Your task to perform on an android device: turn off picture-in-picture Image 0: 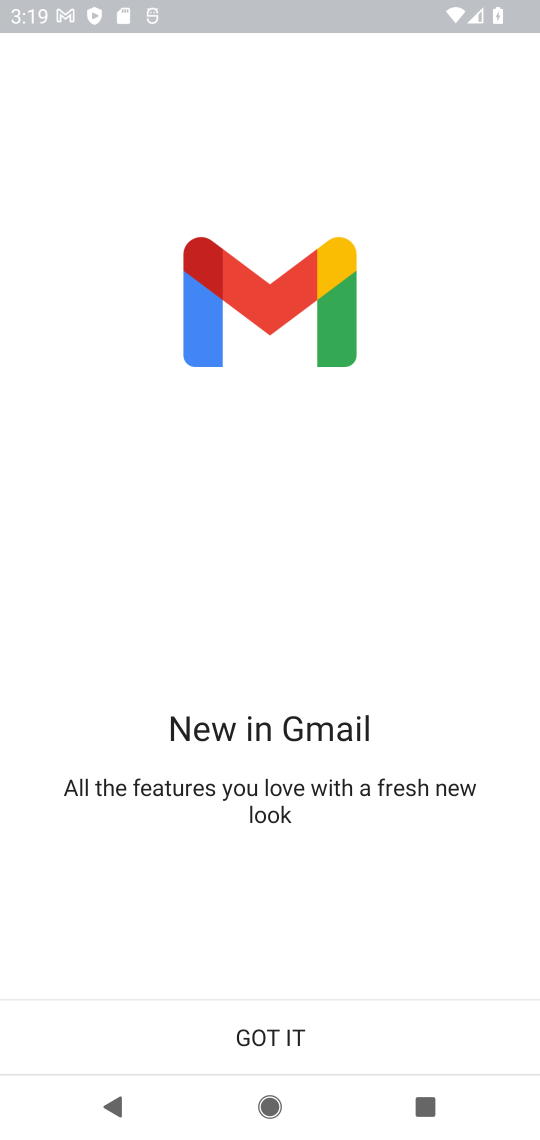
Step 0: press home button
Your task to perform on an android device: turn off picture-in-picture Image 1: 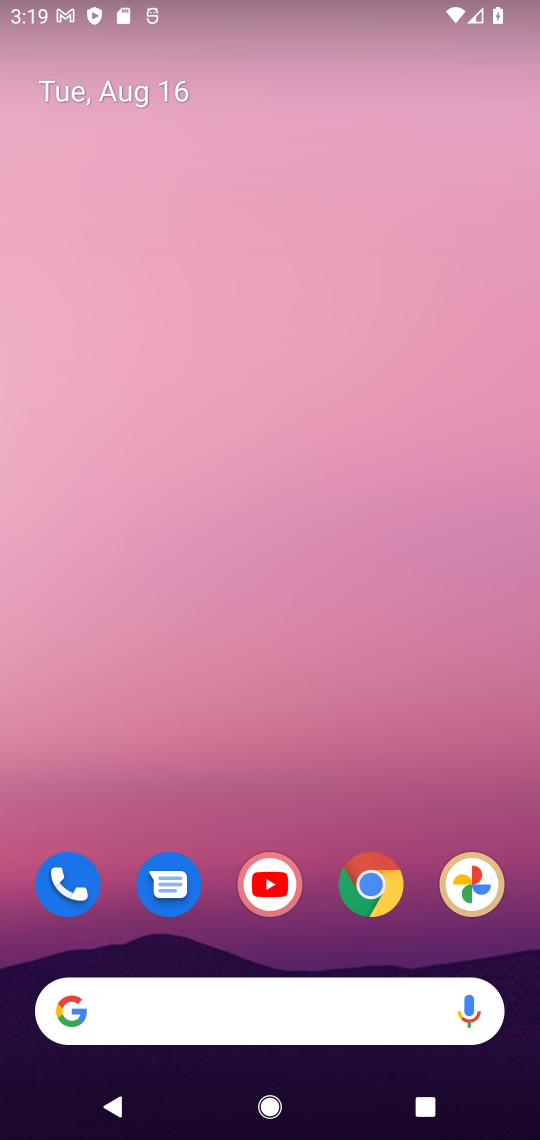
Step 1: click (373, 891)
Your task to perform on an android device: turn off picture-in-picture Image 2: 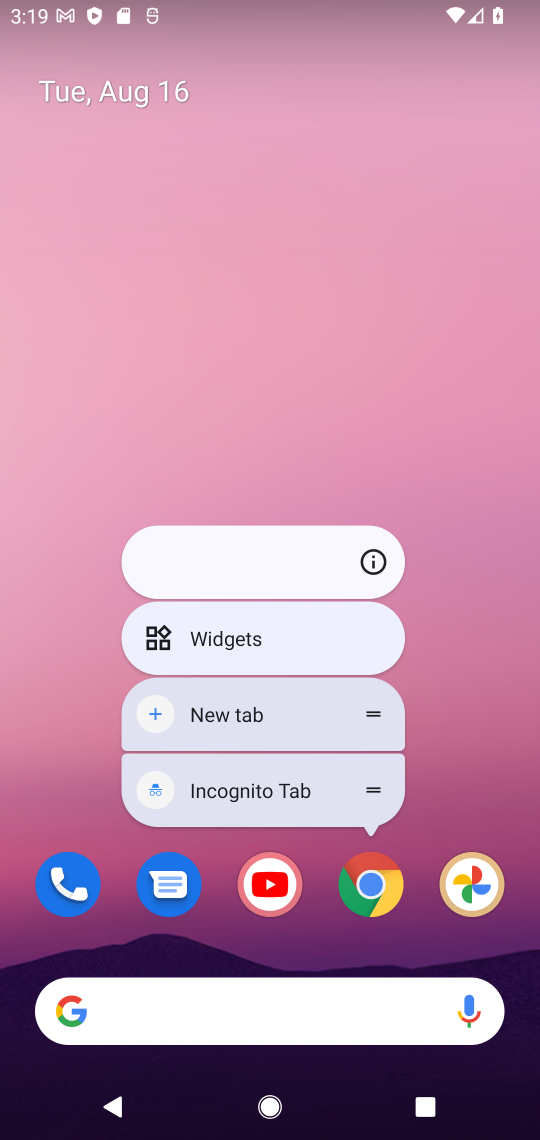
Step 2: click (367, 566)
Your task to perform on an android device: turn off picture-in-picture Image 3: 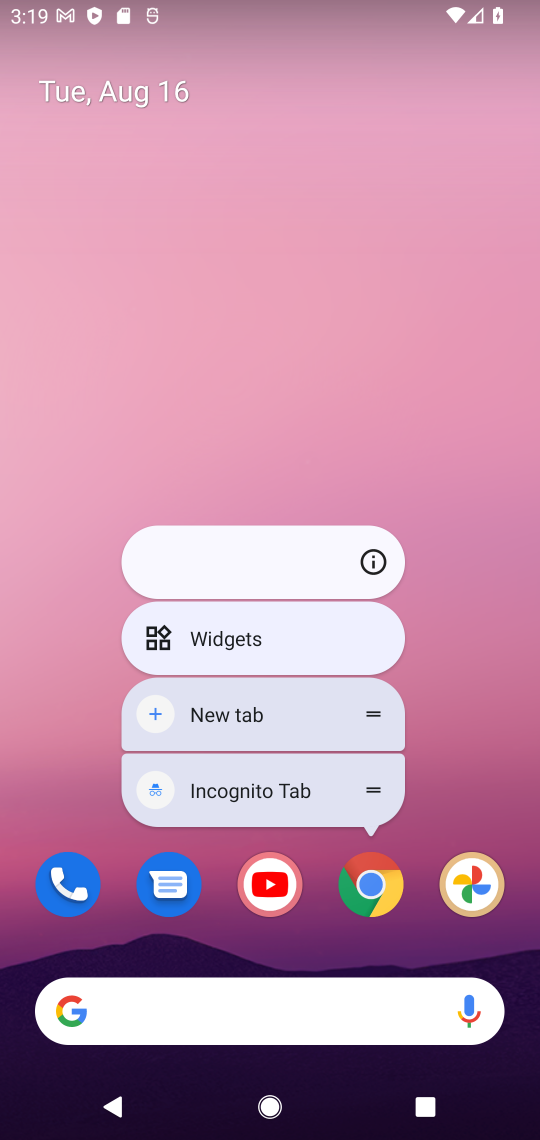
Step 3: click (367, 566)
Your task to perform on an android device: turn off picture-in-picture Image 4: 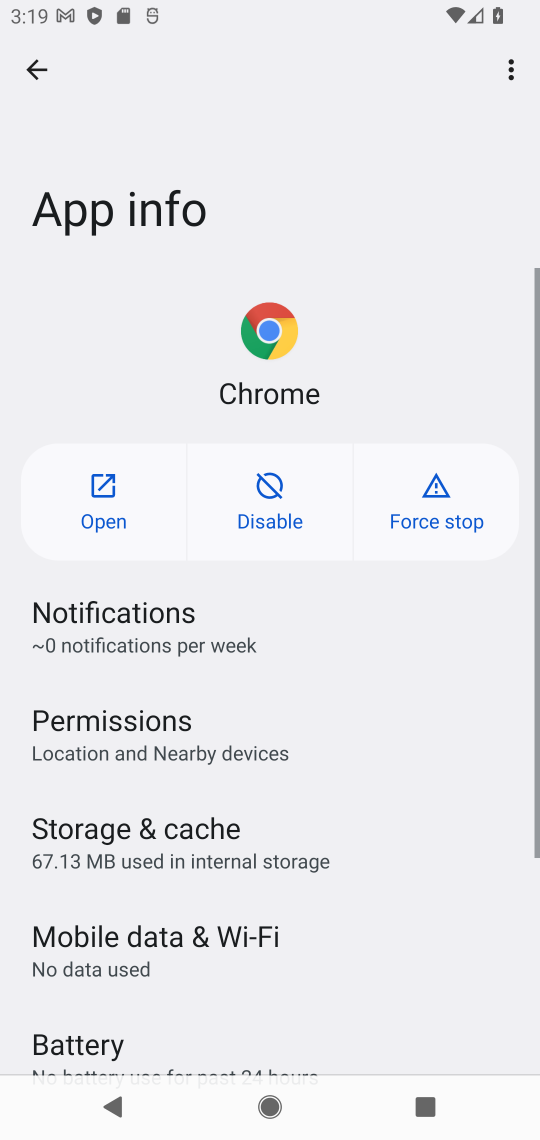
Step 4: drag from (413, 1021) to (353, 235)
Your task to perform on an android device: turn off picture-in-picture Image 5: 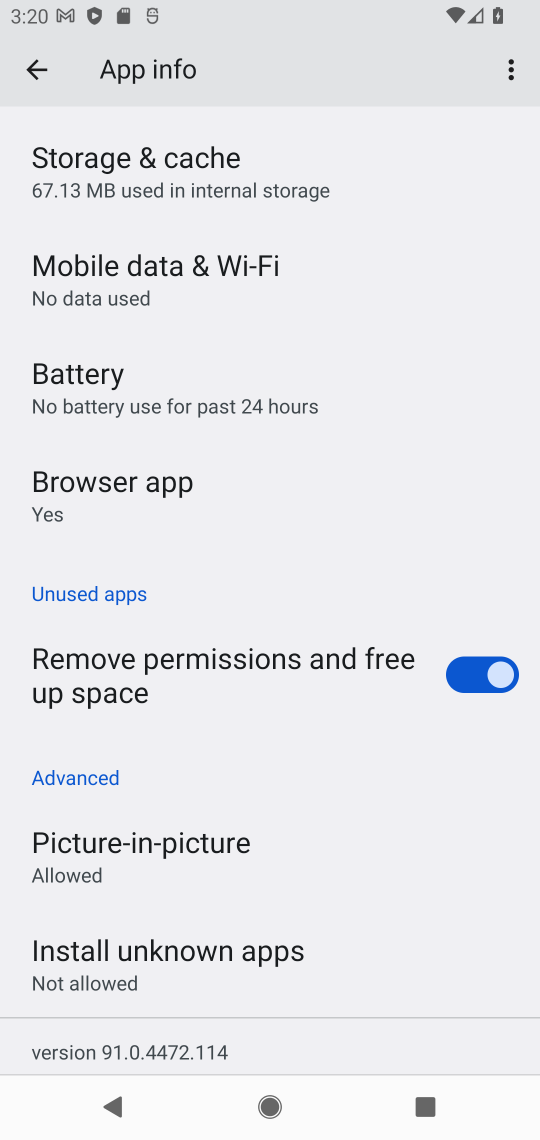
Step 5: click (266, 874)
Your task to perform on an android device: turn off picture-in-picture Image 6: 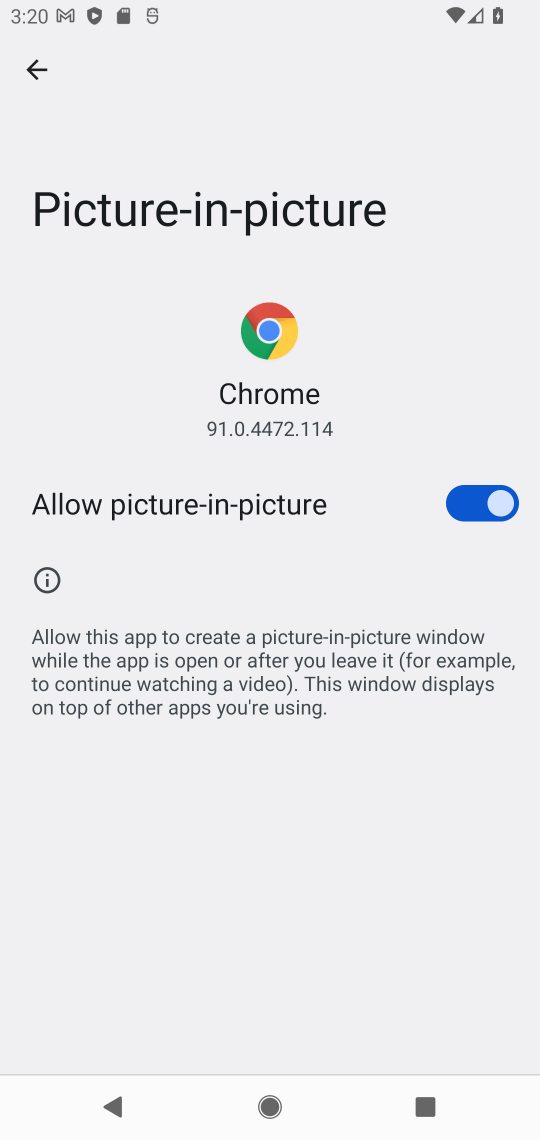
Step 6: click (460, 510)
Your task to perform on an android device: turn off picture-in-picture Image 7: 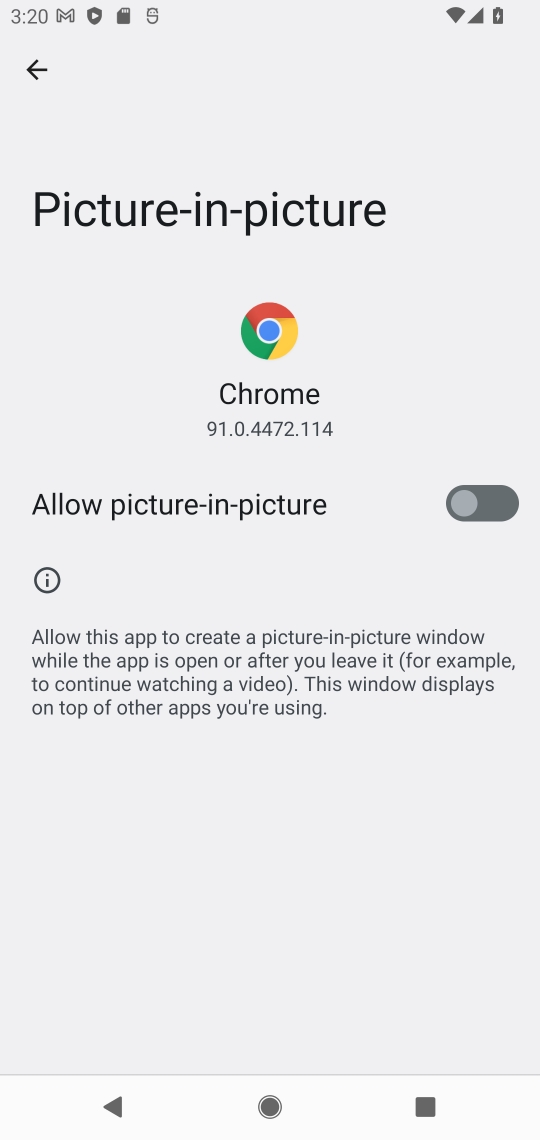
Step 7: task complete